Your task to perform on an android device: View the shopping cart on walmart.com. Image 0: 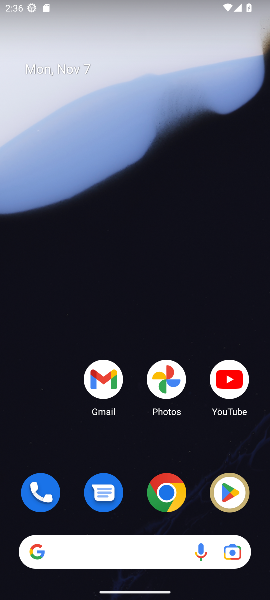
Step 0: click (169, 492)
Your task to perform on an android device: View the shopping cart on walmart.com. Image 1: 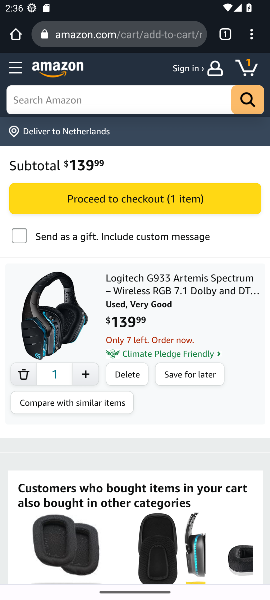
Step 1: click (132, 35)
Your task to perform on an android device: View the shopping cart on walmart.com. Image 2: 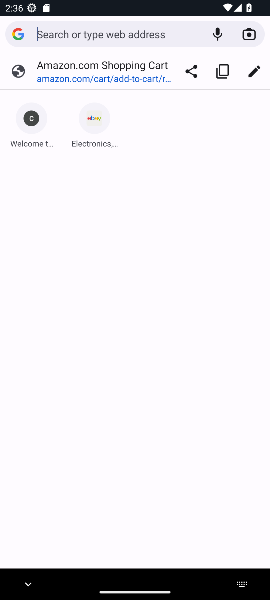
Step 2: type "walmart.com"
Your task to perform on an android device: View the shopping cart on walmart.com. Image 3: 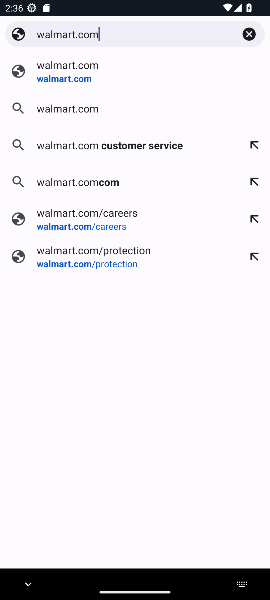
Step 3: click (63, 77)
Your task to perform on an android device: View the shopping cart on walmart.com. Image 4: 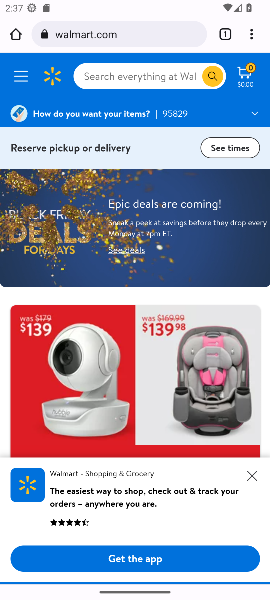
Step 4: click (247, 73)
Your task to perform on an android device: View the shopping cart on walmart.com. Image 5: 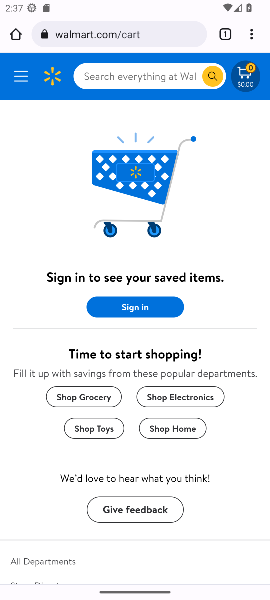
Step 5: task complete